Your task to perform on an android device: Open calendar and show me the third week of next month Image 0: 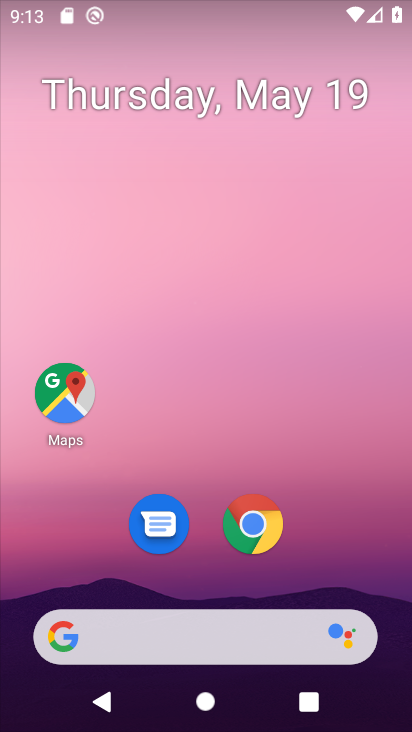
Step 0: drag from (352, 537) to (313, 47)
Your task to perform on an android device: Open calendar and show me the third week of next month Image 1: 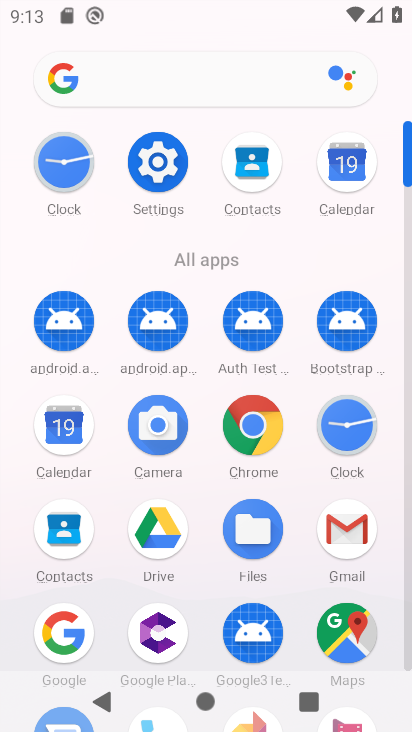
Step 1: click (349, 168)
Your task to perform on an android device: Open calendar and show me the third week of next month Image 2: 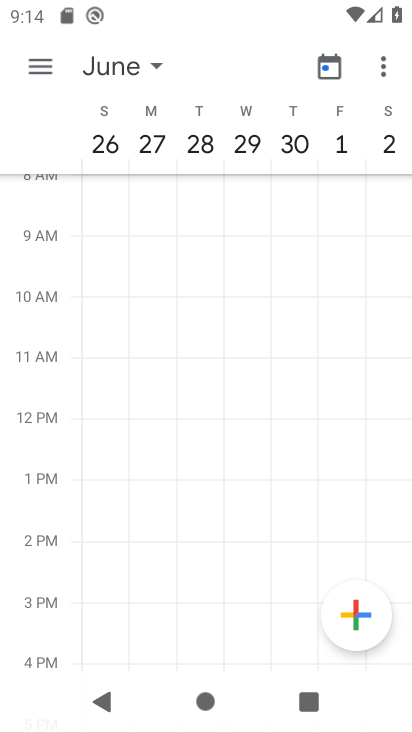
Step 2: task complete